Your task to perform on an android device: turn off data saver in the chrome app Image 0: 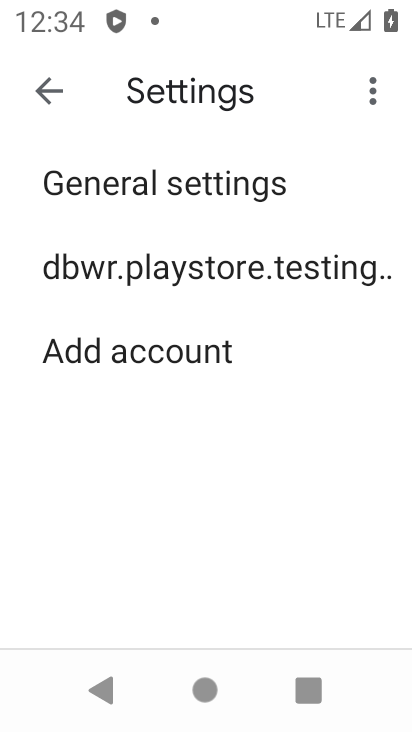
Step 0: press home button
Your task to perform on an android device: turn off data saver in the chrome app Image 1: 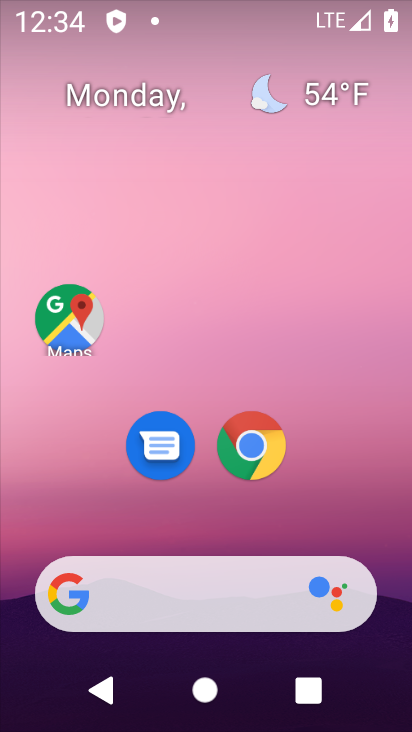
Step 1: drag from (335, 511) to (339, 119)
Your task to perform on an android device: turn off data saver in the chrome app Image 2: 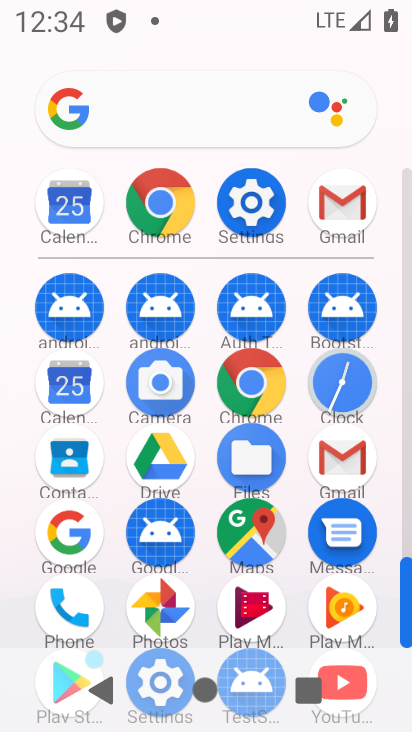
Step 2: click (244, 391)
Your task to perform on an android device: turn off data saver in the chrome app Image 3: 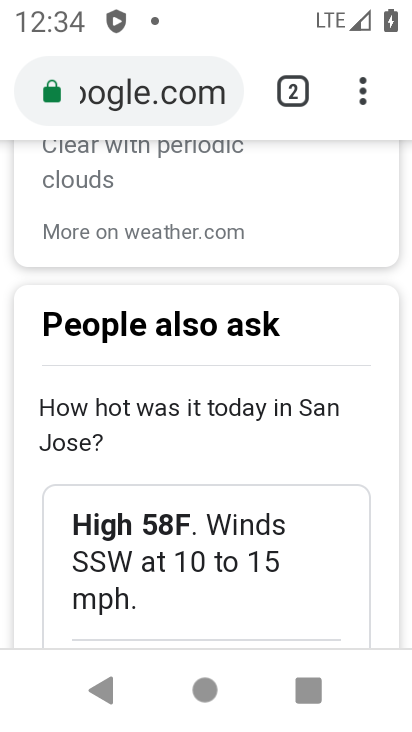
Step 3: drag from (354, 97) to (207, 486)
Your task to perform on an android device: turn off data saver in the chrome app Image 4: 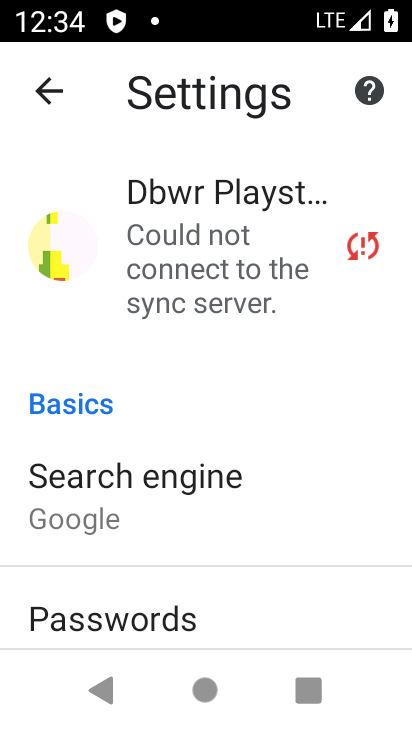
Step 4: drag from (245, 603) to (225, 271)
Your task to perform on an android device: turn off data saver in the chrome app Image 5: 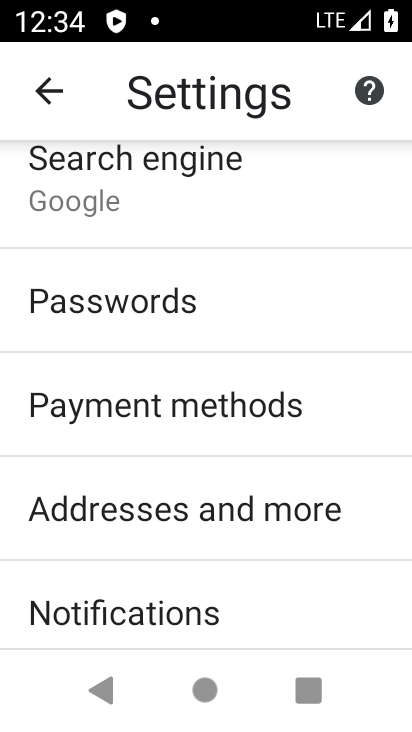
Step 5: drag from (258, 580) to (251, 271)
Your task to perform on an android device: turn off data saver in the chrome app Image 6: 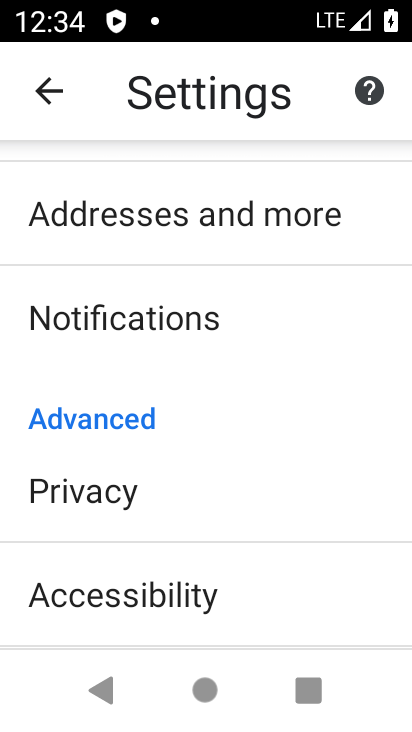
Step 6: drag from (289, 557) to (262, 333)
Your task to perform on an android device: turn off data saver in the chrome app Image 7: 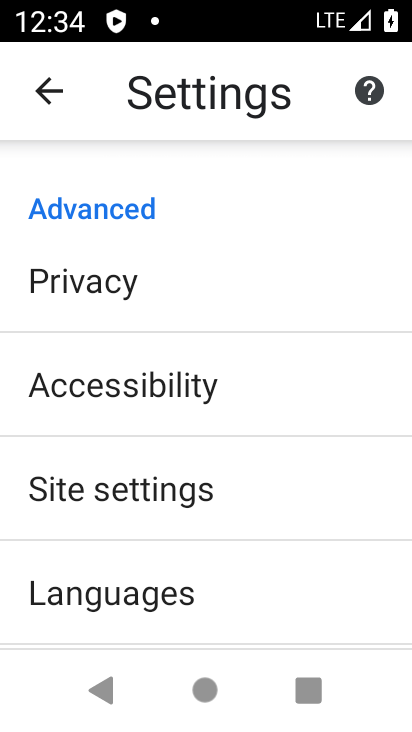
Step 7: drag from (278, 533) to (271, 258)
Your task to perform on an android device: turn off data saver in the chrome app Image 8: 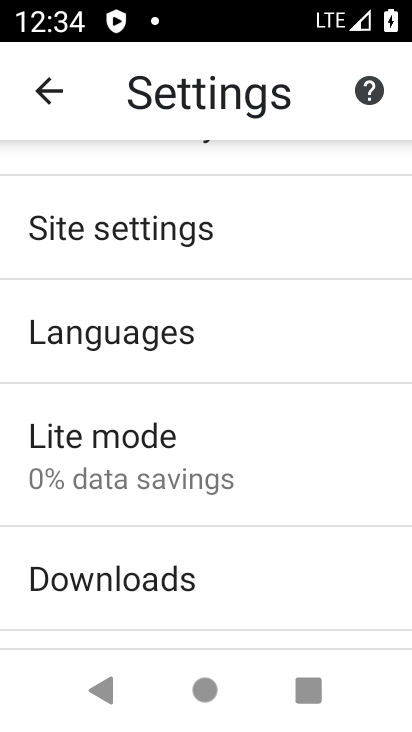
Step 8: click (184, 459)
Your task to perform on an android device: turn off data saver in the chrome app Image 9: 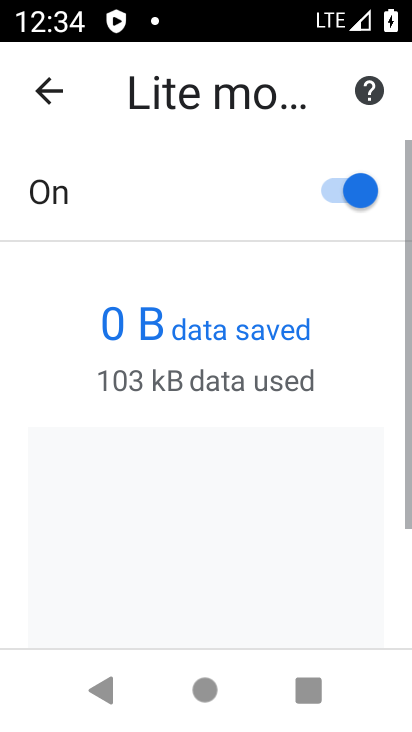
Step 9: click (332, 190)
Your task to perform on an android device: turn off data saver in the chrome app Image 10: 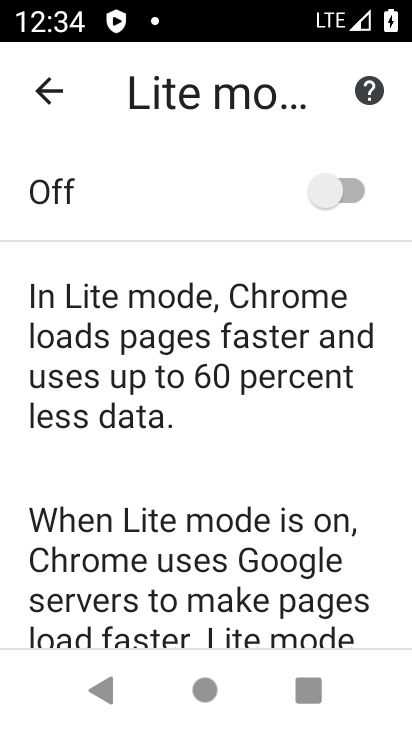
Step 10: task complete